Your task to perform on an android device: Open battery settings Image 0: 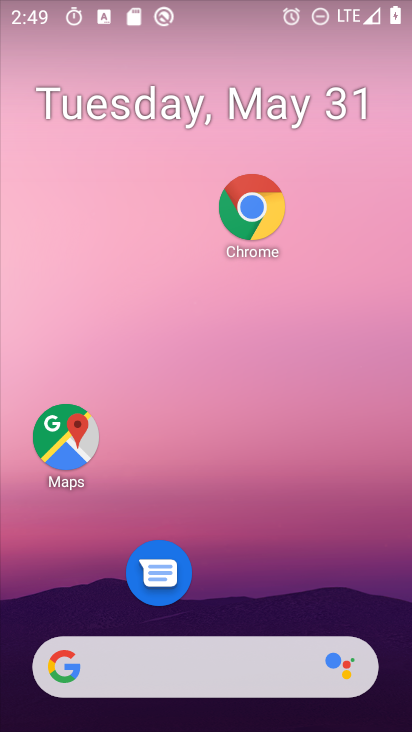
Step 0: drag from (153, 690) to (196, 58)
Your task to perform on an android device: Open battery settings Image 1: 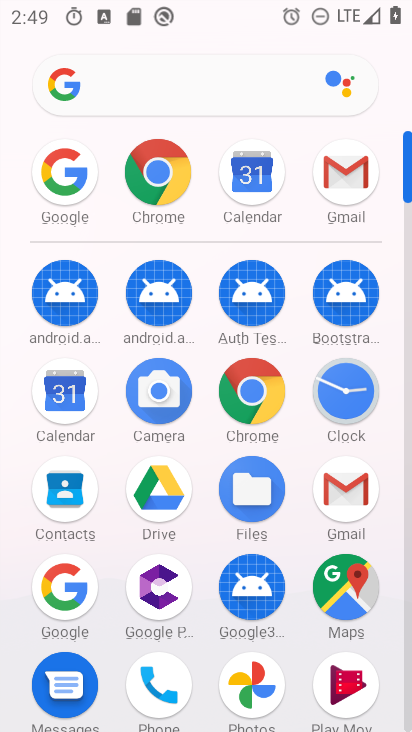
Step 1: drag from (191, 453) to (197, 249)
Your task to perform on an android device: Open battery settings Image 2: 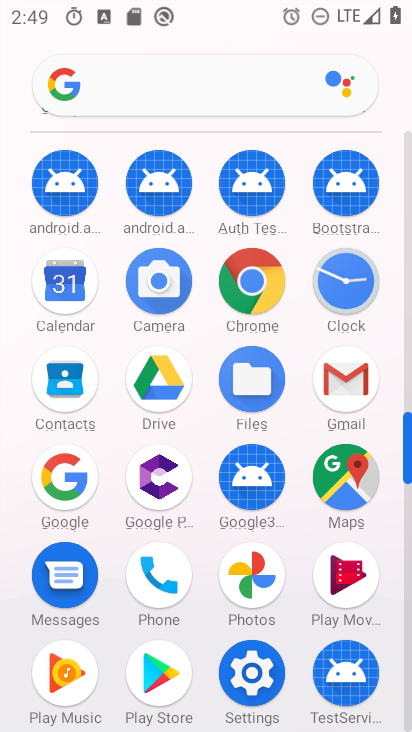
Step 2: click (256, 675)
Your task to perform on an android device: Open battery settings Image 3: 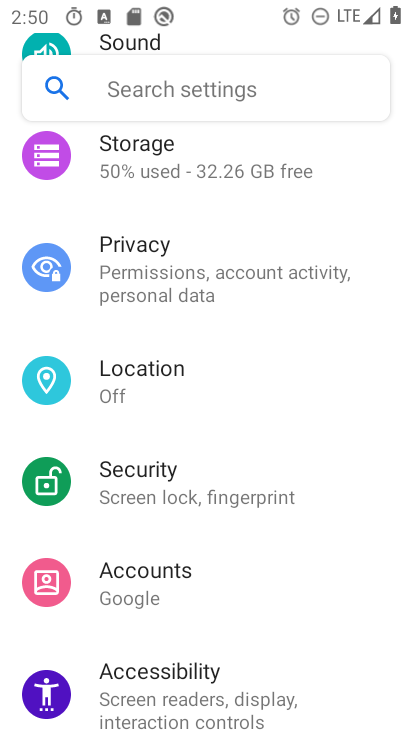
Step 3: drag from (194, 331) to (194, 645)
Your task to perform on an android device: Open battery settings Image 4: 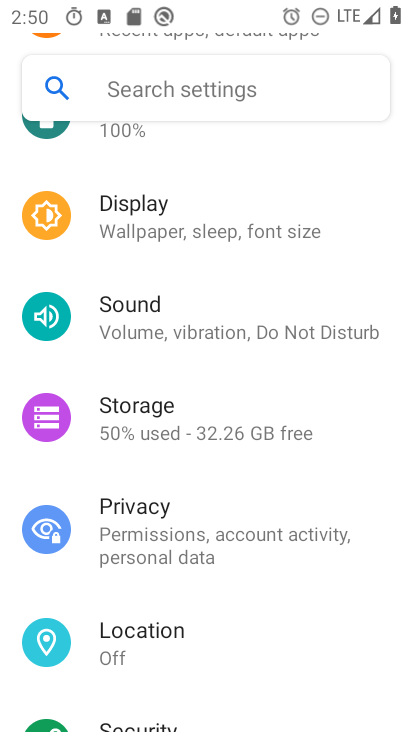
Step 4: click (164, 139)
Your task to perform on an android device: Open battery settings Image 5: 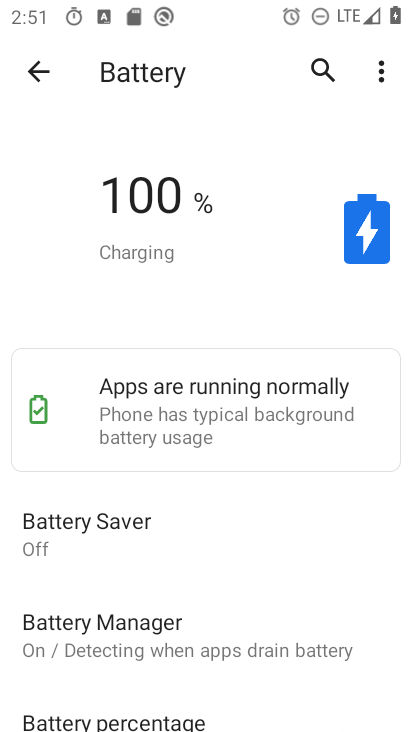
Step 5: task complete